Your task to perform on an android device: Open the calendar app, open the side menu, and click the "Day" option Image 0: 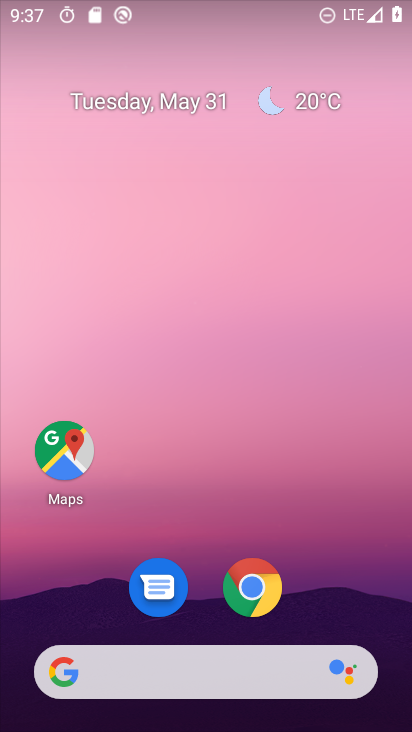
Step 0: click (174, 112)
Your task to perform on an android device: Open the calendar app, open the side menu, and click the "Day" option Image 1: 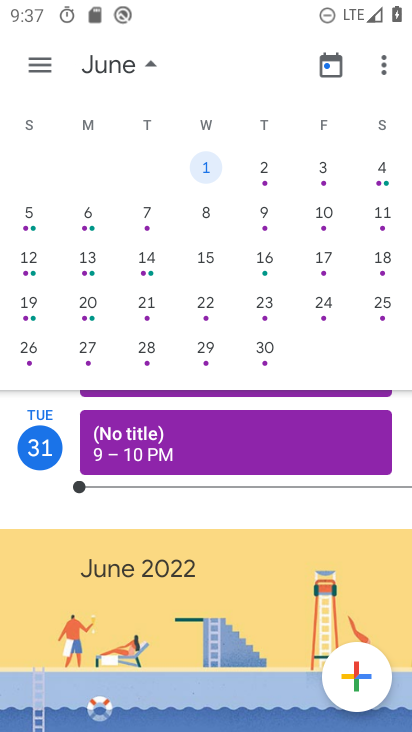
Step 1: click (48, 62)
Your task to perform on an android device: Open the calendar app, open the side menu, and click the "Day" option Image 2: 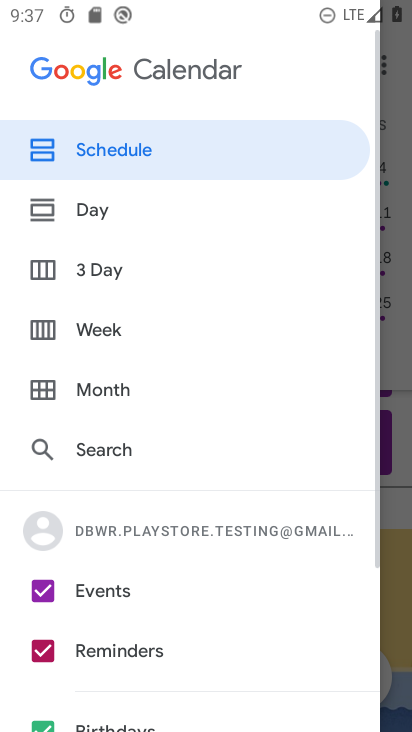
Step 2: click (67, 196)
Your task to perform on an android device: Open the calendar app, open the side menu, and click the "Day" option Image 3: 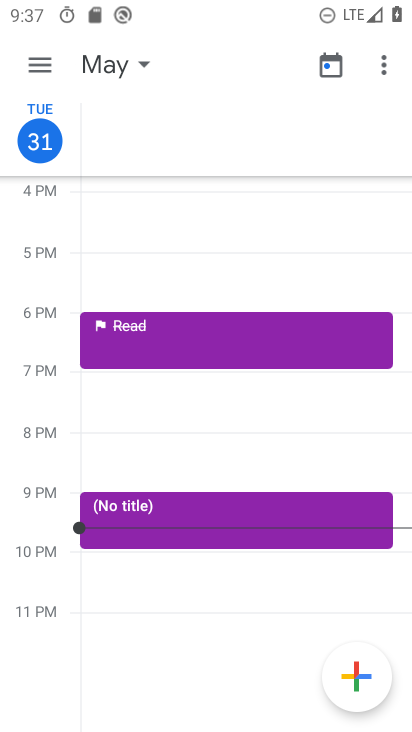
Step 3: task complete